Your task to perform on an android device: Show me popular games on the Play Store Image 0: 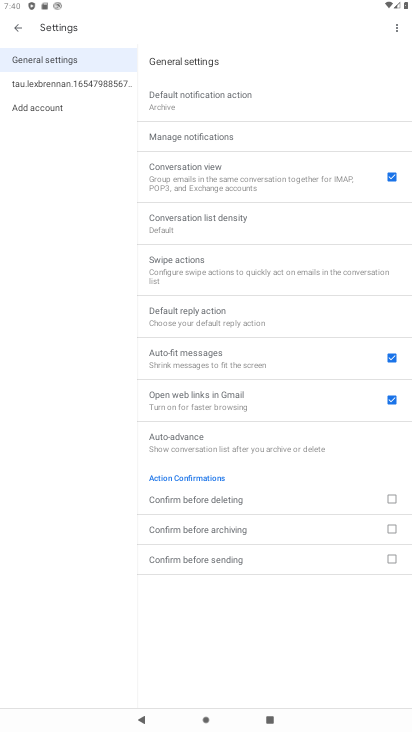
Step 0: press home button
Your task to perform on an android device: Show me popular games on the Play Store Image 1: 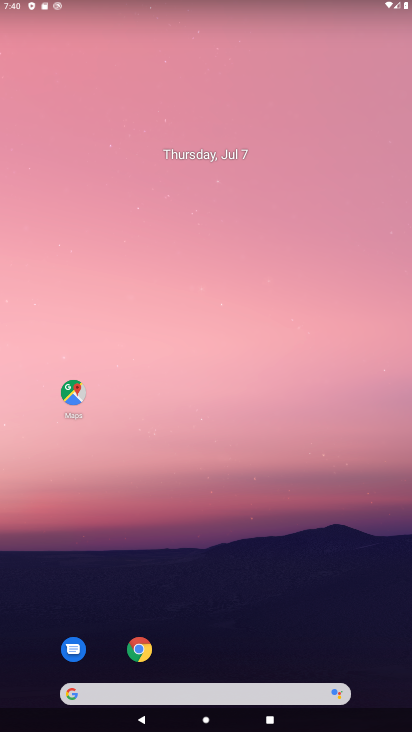
Step 1: drag from (190, 627) to (202, 149)
Your task to perform on an android device: Show me popular games on the Play Store Image 2: 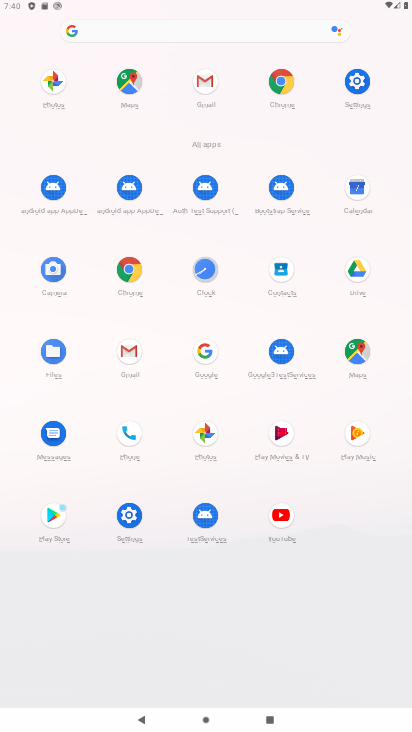
Step 2: click (49, 517)
Your task to perform on an android device: Show me popular games on the Play Store Image 3: 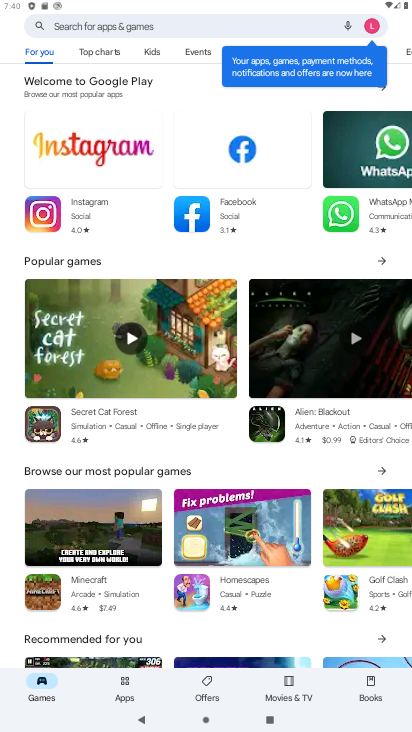
Step 3: click (101, 57)
Your task to perform on an android device: Show me popular games on the Play Store Image 4: 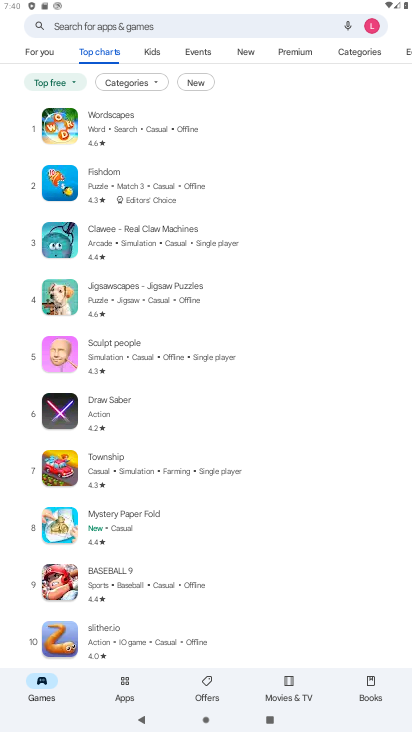
Step 4: task complete